Your task to perform on an android device: Go to notification settings Image 0: 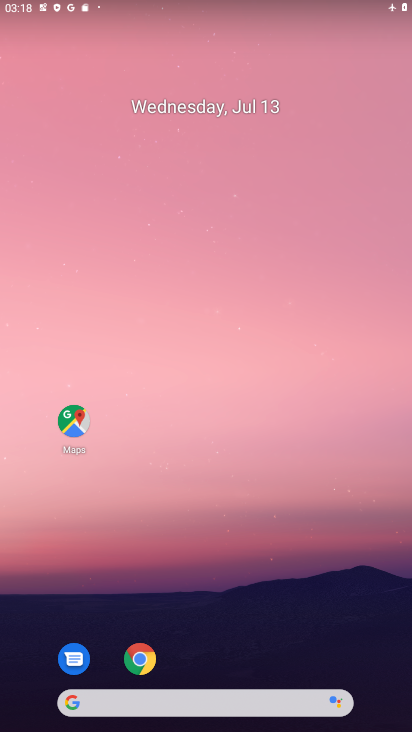
Step 0: drag from (244, 673) to (246, 140)
Your task to perform on an android device: Go to notification settings Image 1: 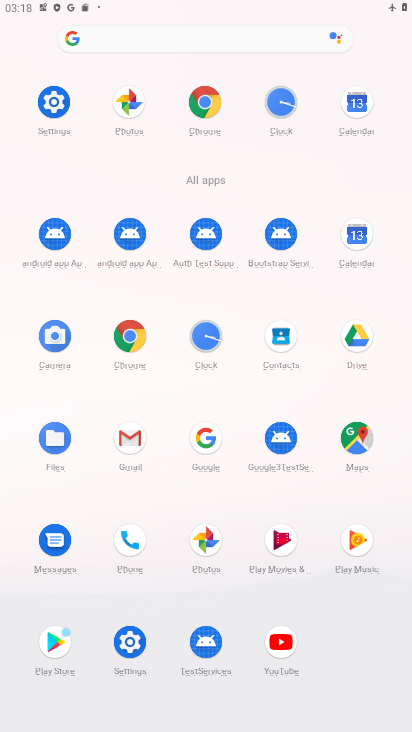
Step 1: click (70, 113)
Your task to perform on an android device: Go to notification settings Image 2: 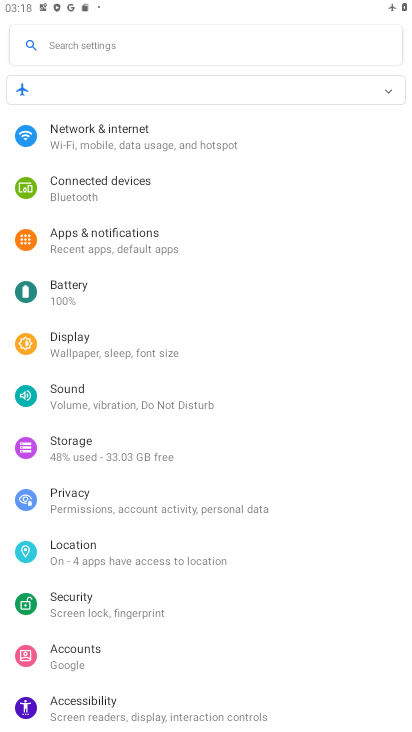
Step 2: click (70, 113)
Your task to perform on an android device: Go to notification settings Image 3: 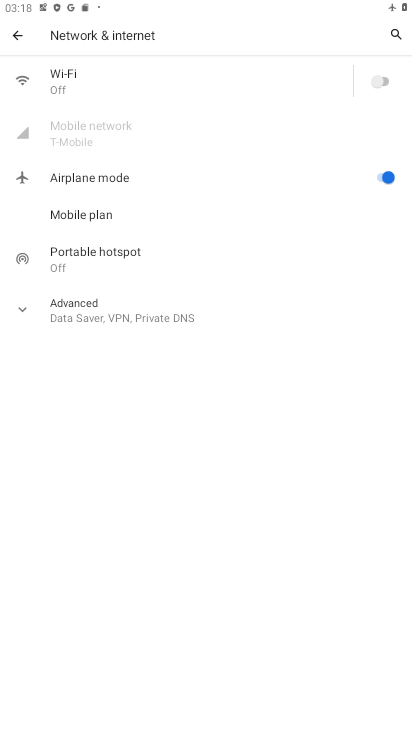
Step 3: click (16, 41)
Your task to perform on an android device: Go to notification settings Image 4: 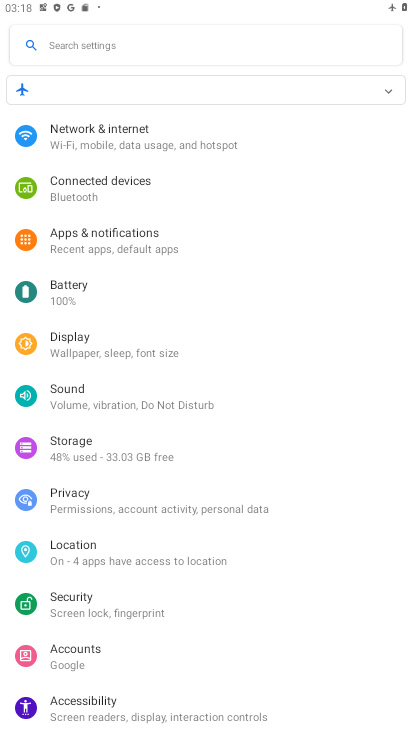
Step 4: click (83, 245)
Your task to perform on an android device: Go to notification settings Image 5: 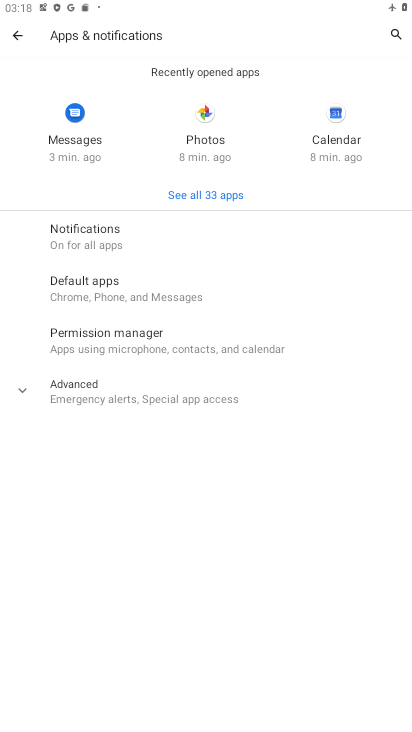
Step 5: task complete